Your task to perform on an android device: Open maps Image 0: 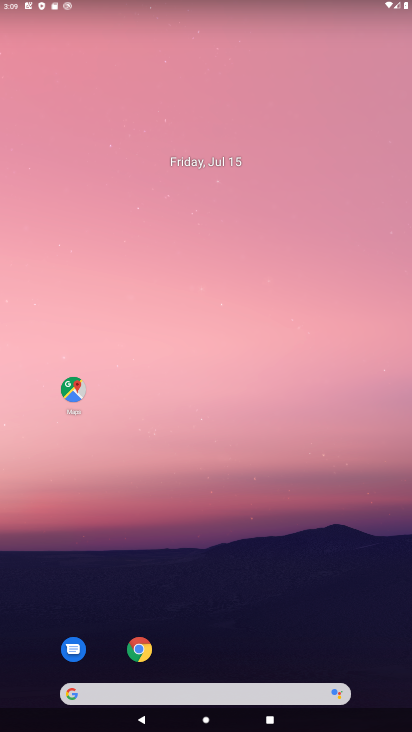
Step 0: drag from (326, 594) to (332, 112)
Your task to perform on an android device: Open maps Image 1: 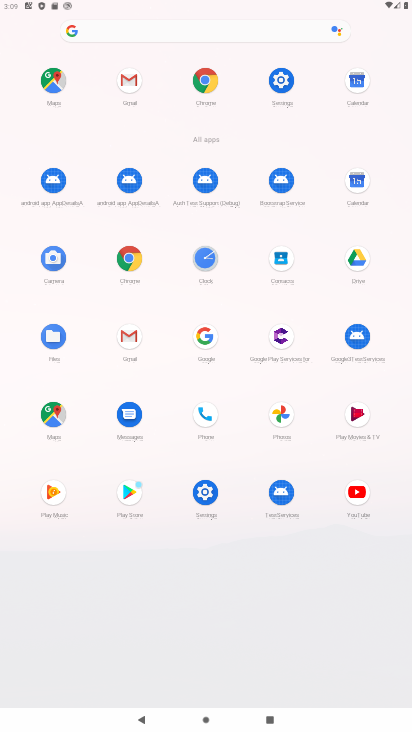
Step 1: click (55, 86)
Your task to perform on an android device: Open maps Image 2: 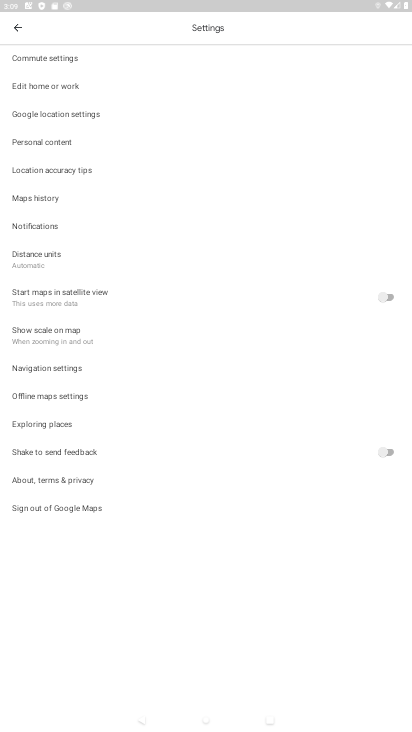
Step 2: task complete